Your task to perform on an android device: allow notifications from all sites in the chrome app Image 0: 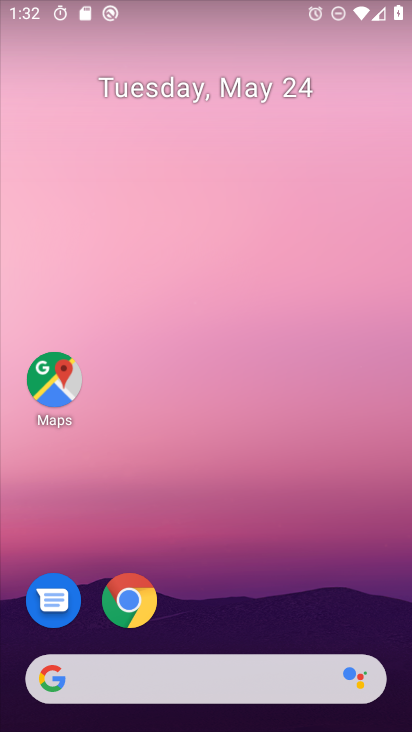
Step 0: drag from (276, 605) to (272, 183)
Your task to perform on an android device: allow notifications from all sites in the chrome app Image 1: 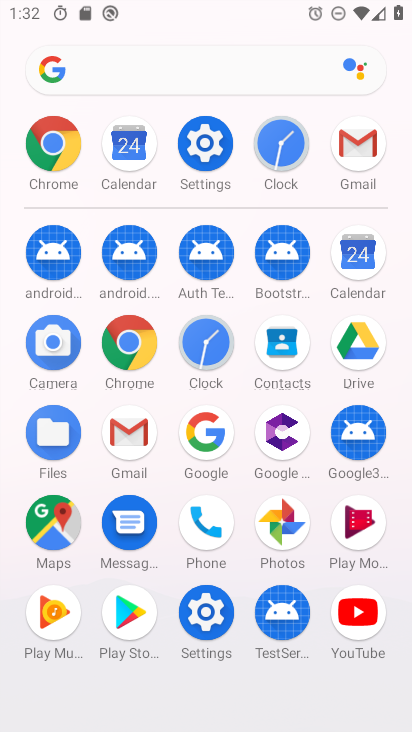
Step 1: click (119, 343)
Your task to perform on an android device: allow notifications from all sites in the chrome app Image 2: 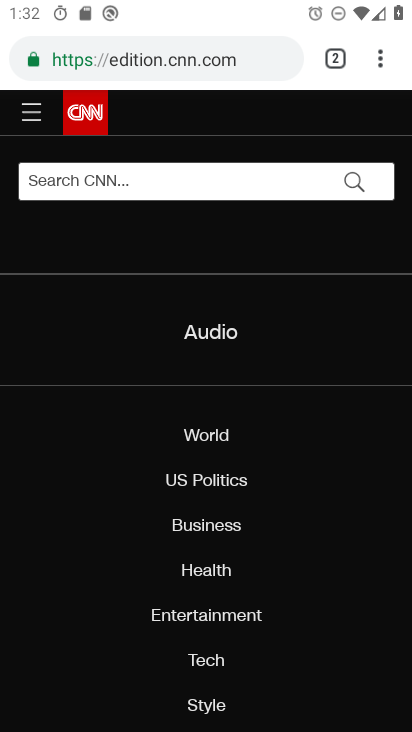
Step 2: click (383, 60)
Your task to perform on an android device: allow notifications from all sites in the chrome app Image 3: 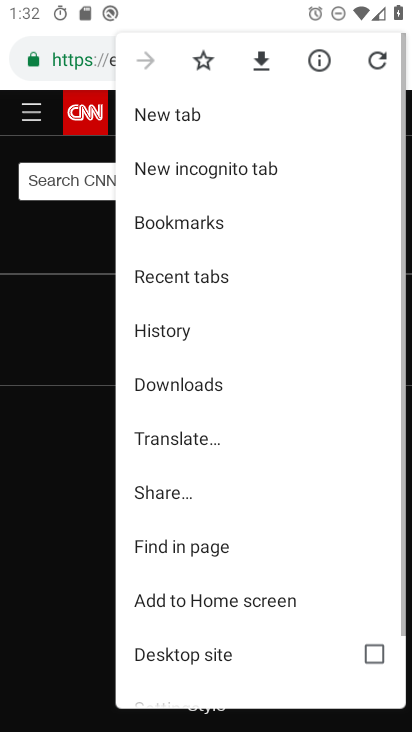
Step 3: drag from (234, 600) to (304, 241)
Your task to perform on an android device: allow notifications from all sites in the chrome app Image 4: 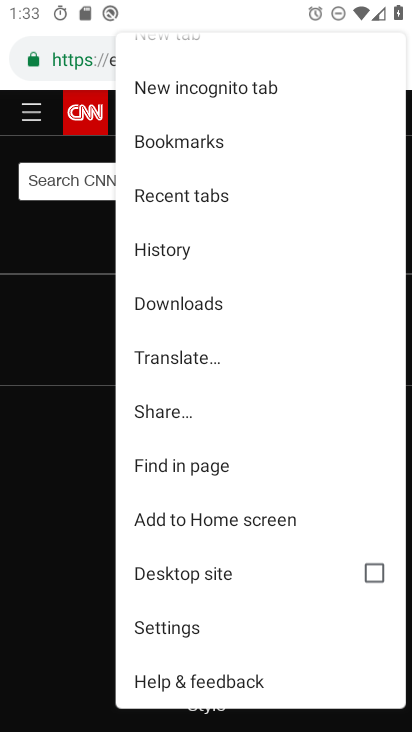
Step 4: click (177, 632)
Your task to perform on an android device: allow notifications from all sites in the chrome app Image 5: 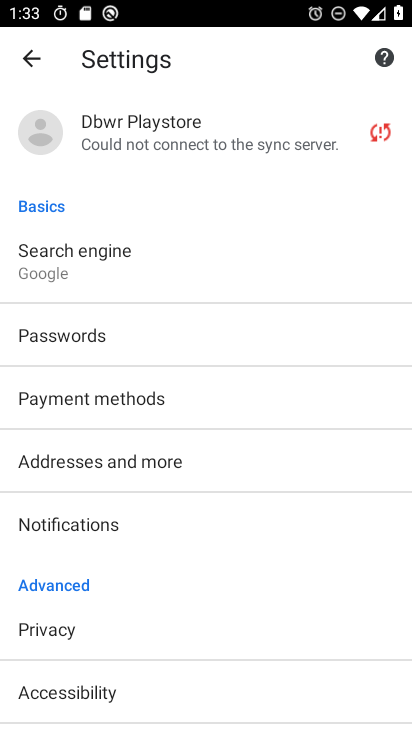
Step 5: click (152, 525)
Your task to perform on an android device: allow notifications from all sites in the chrome app Image 6: 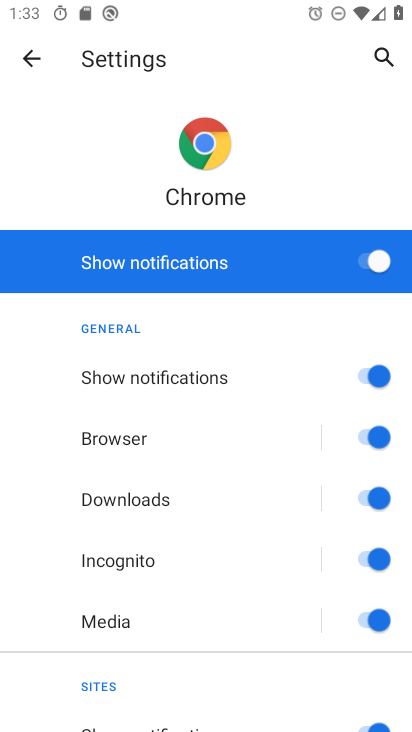
Step 6: task complete